Your task to perform on an android device: Go to display settings Image 0: 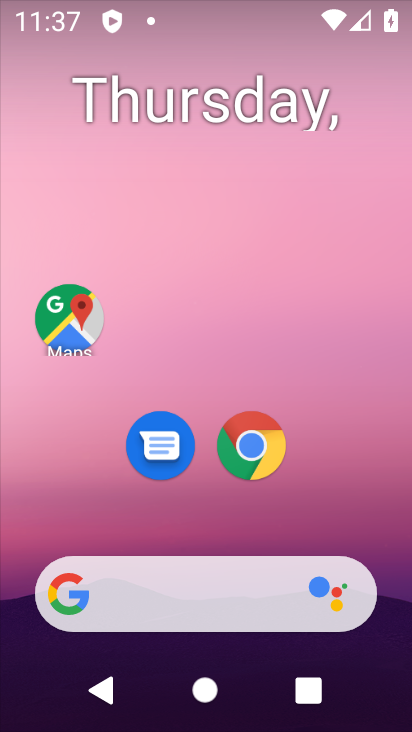
Step 0: click (253, 280)
Your task to perform on an android device: Go to display settings Image 1: 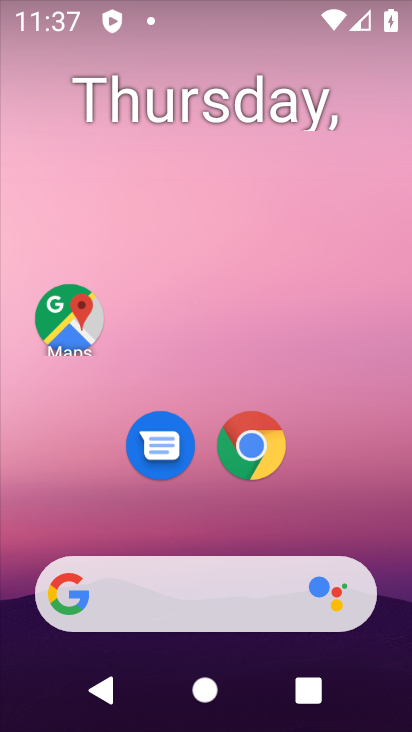
Step 1: drag from (286, 428) to (260, 198)
Your task to perform on an android device: Go to display settings Image 2: 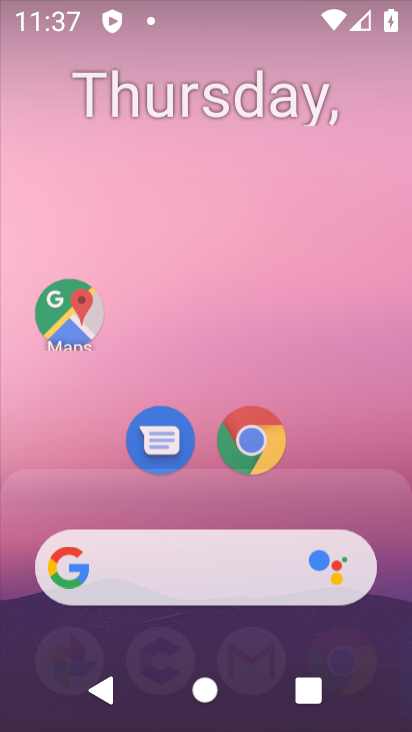
Step 2: drag from (323, 432) to (275, 167)
Your task to perform on an android device: Go to display settings Image 3: 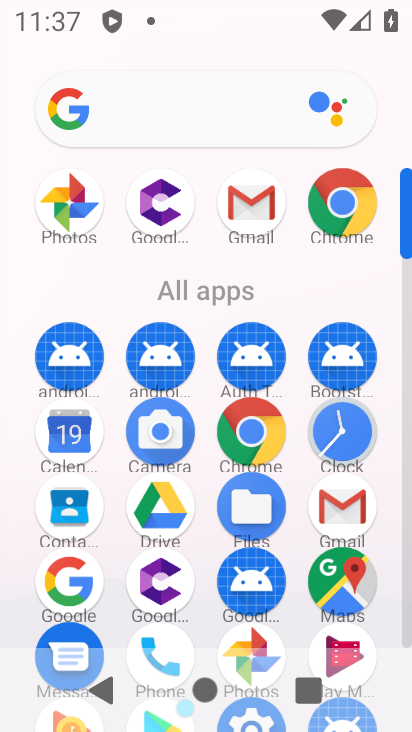
Step 3: drag from (297, 434) to (272, 57)
Your task to perform on an android device: Go to display settings Image 4: 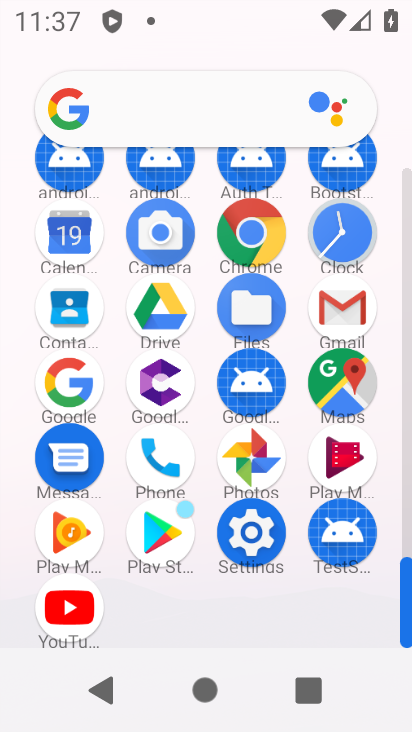
Step 4: drag from (271, 298) to (284, 114)
Your task to perform on an android device: Go to display settings Image 5: 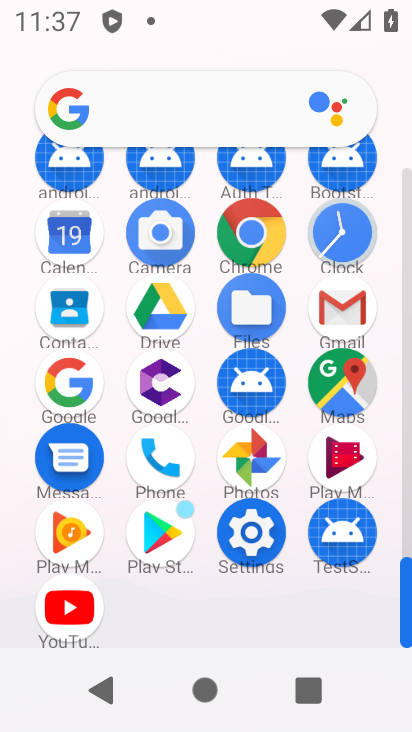
Step 5: click (249, 534)
Your task to perform on an android device: Go to display settings Image 6: 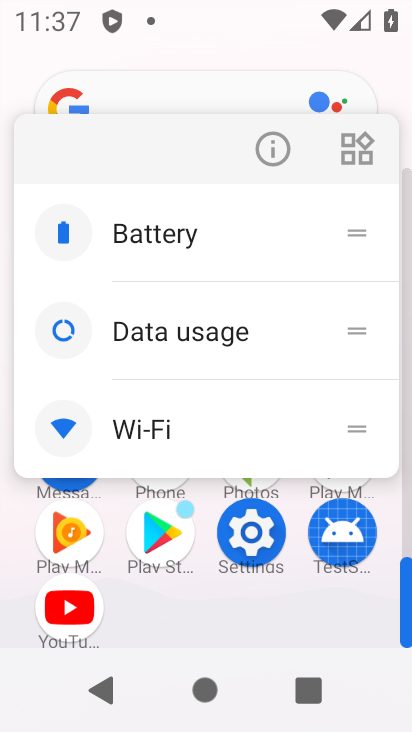
Step 6: click (251, 531)
Your task to perform on an android device: Go to display settings Image 7: 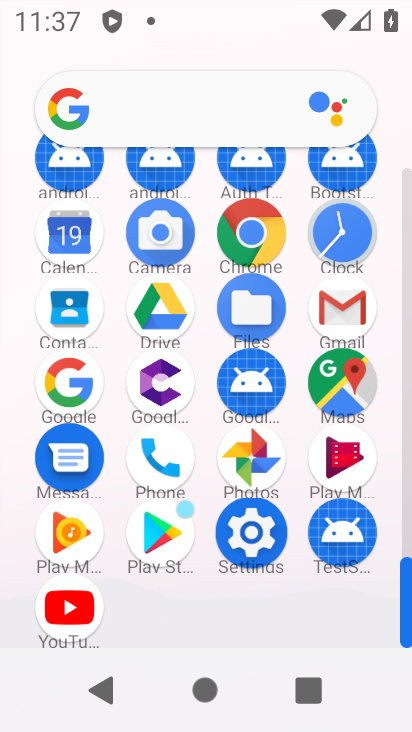
Step 7: click (251, 531)
Your task to perform on an android device: Go to display settings Image 8: 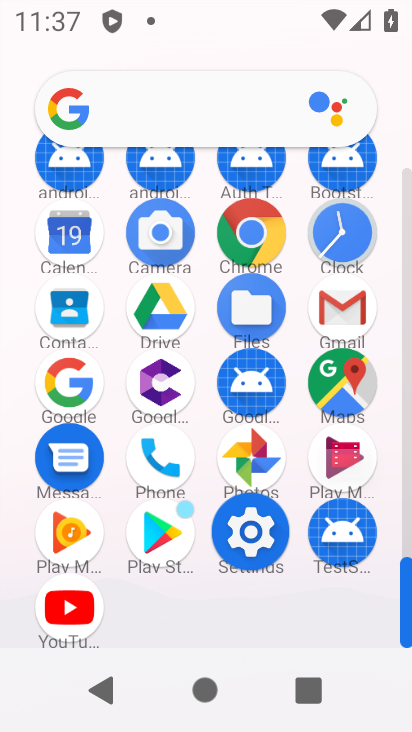
Step 8: click (251, 531)
Your task to perform on an android device: Go to display settings Image 9: 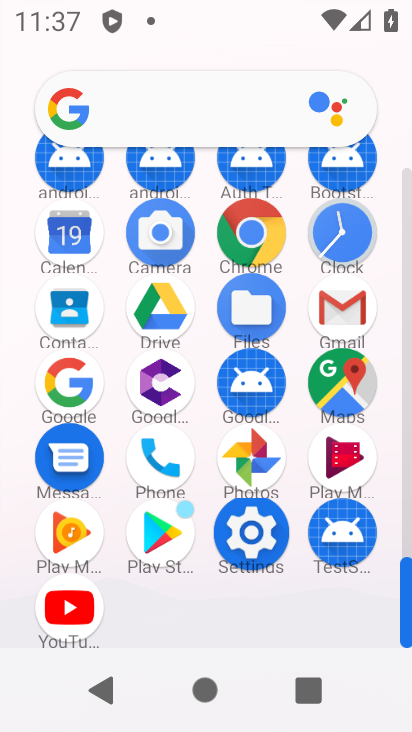
Step 9: click (251, 531)
Your task to perform on an android device: Go to display settings Image 10: 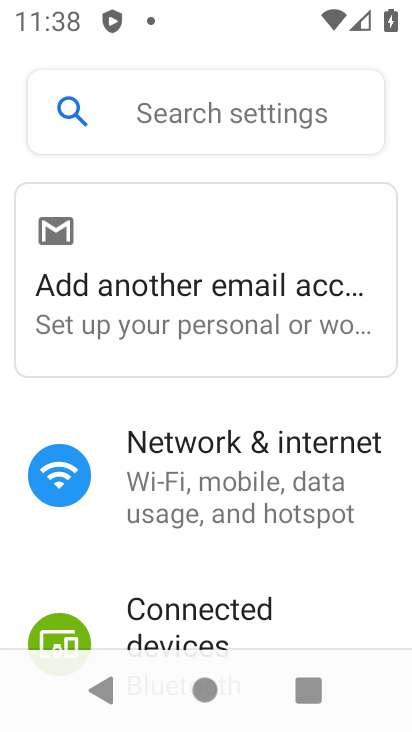
Step 10: drag from (236, 517) to (219, 240)
Your task to perform on an android device: Go to display settings Image 11: 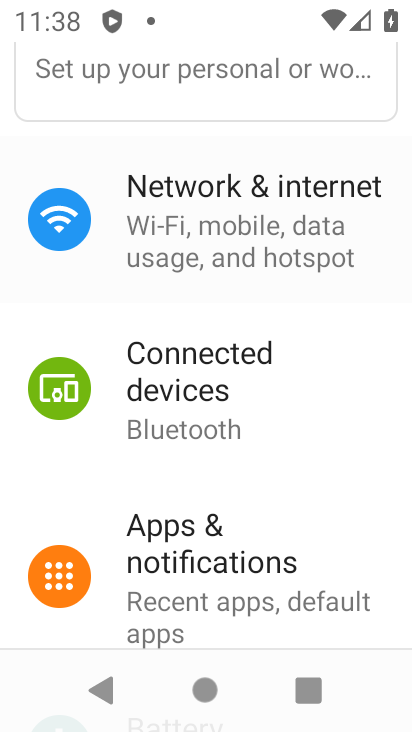
Step 11: drag from (234, 501) to (243, 257)
Your task to perform on an android device: Go to display settings Image 12: 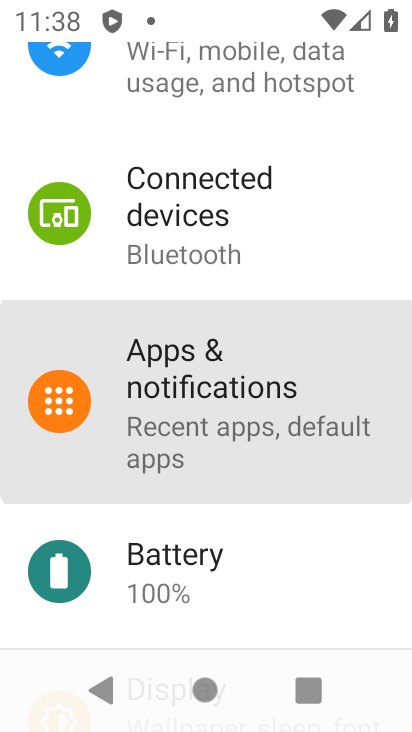
Step 12: drag from (247, 562) to (244, 295)
Your task to perform on an android device: Go to display settings Image 13: 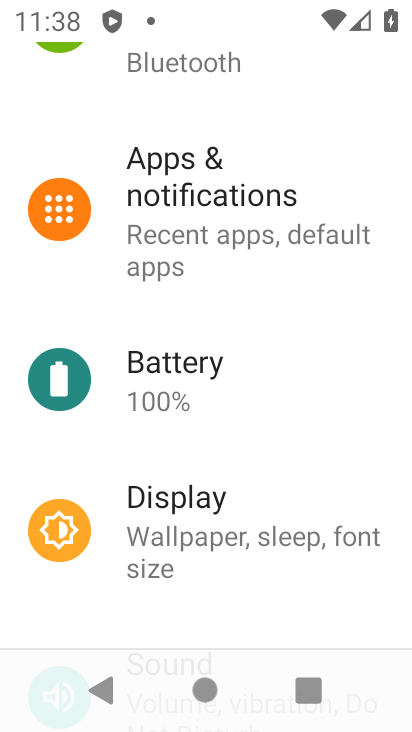
Step 13: click (170, 533)
Your task to perform on an android device: Go to display settings Image 14: 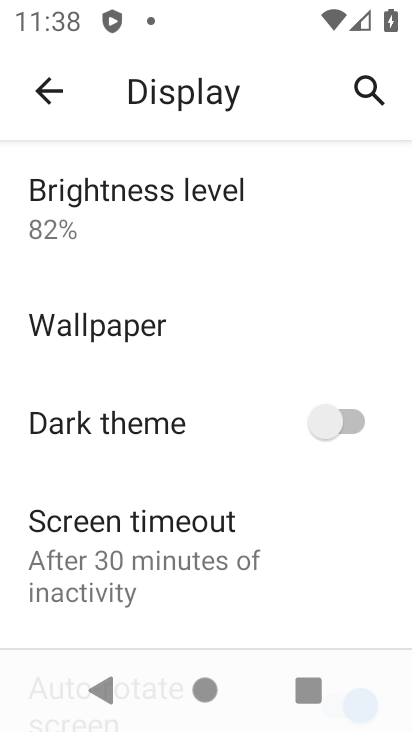
Step 14: task complete